Your task to perform on an android device: turn off location history Image 0: 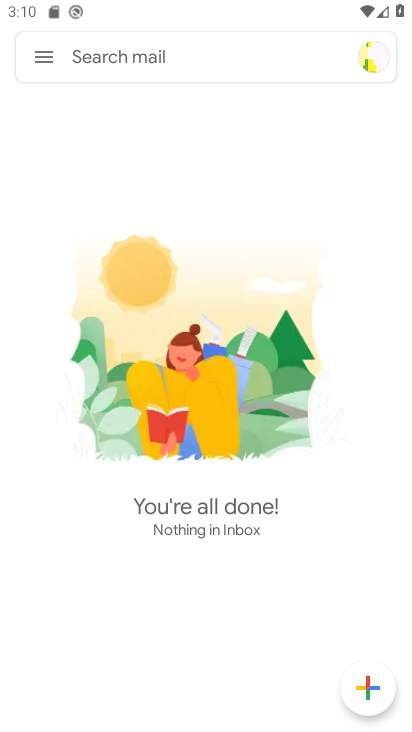
Step 0: click (39, 53)
Your task to perform on an android device: turn off location history Image 1: 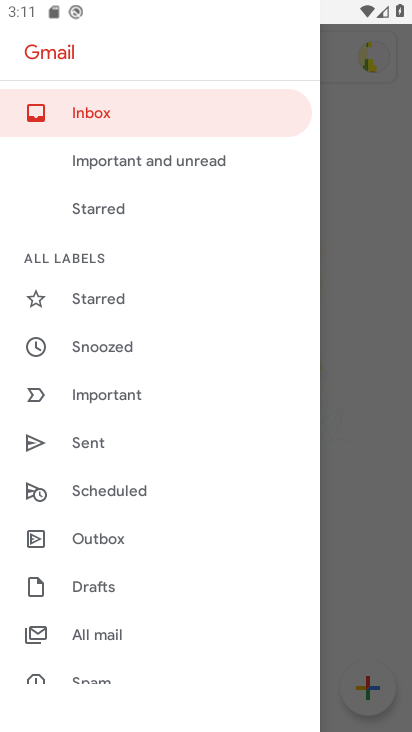
Step 1: press home button
Your task to perform on an android device: turn off location history Image 2: 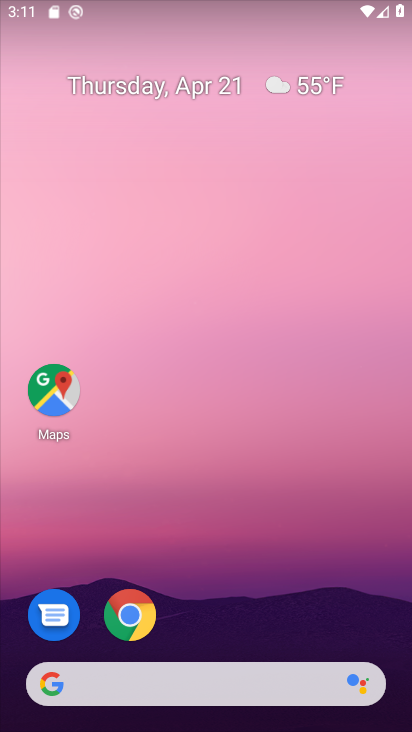
Step 2: drag from (227, 634) to (231, 26)
Your task to perform on an android device: turn off location history Image 3: 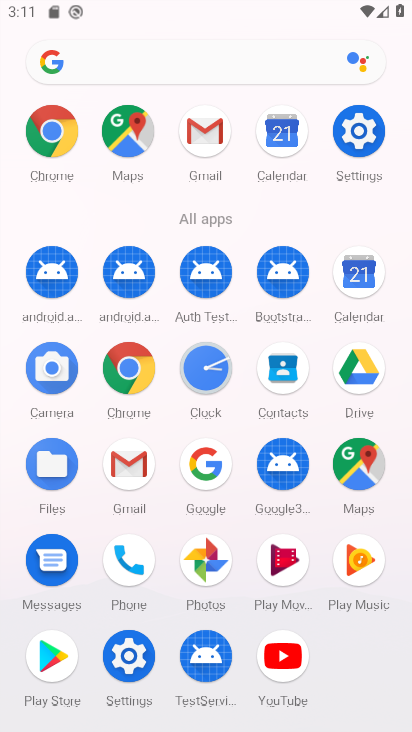
Step 3: click (355, 121)
Your task to perform on an android device: turn off location history Image 4: 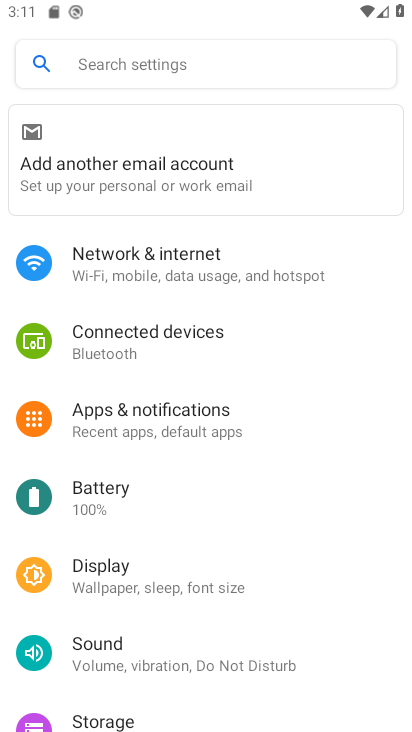
Step 4: drag from (202, 633) to (222, 183)
Your task to perform on an android device: turn off location history Image 5: 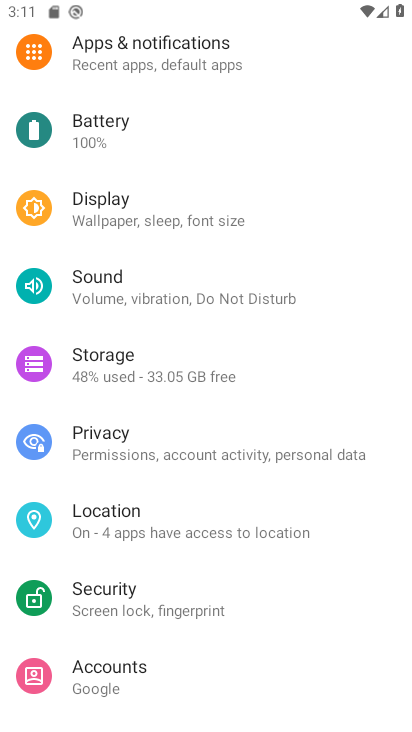
Step 5: click (148, 507)
Your task to perform on an android device: turn off location history Image 6: 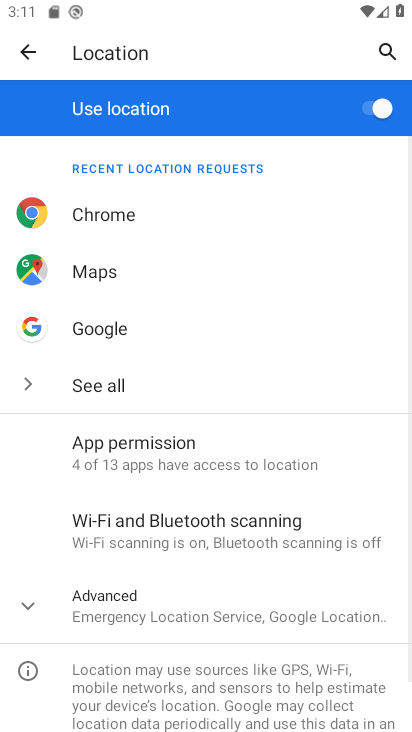
Step 6: click (32, 601)
Your task to perform on an android device: turn off location history Image 7: 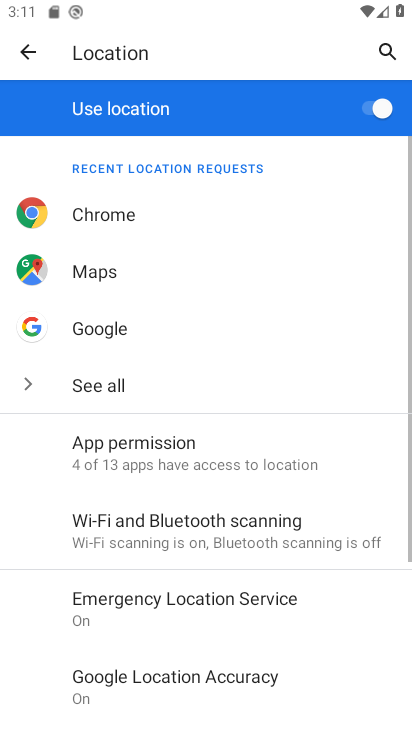
Step 7: drag from (129, 616) to (186, 209)
Your task to perform on an android device: turn off location history Image 8: 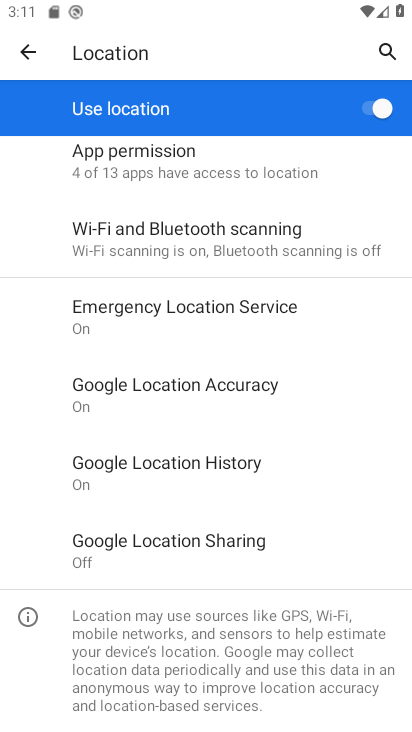
Step 8: click (47, 462)
Your task to perform on an android device: turn off location history Image 9: 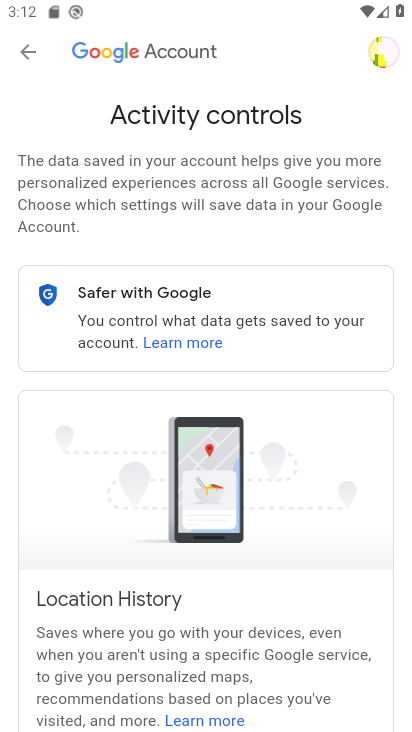
Step 9: drag from (260, 672) to (283, 148)
Your task to perform on an android device: turn off location history Image 10: 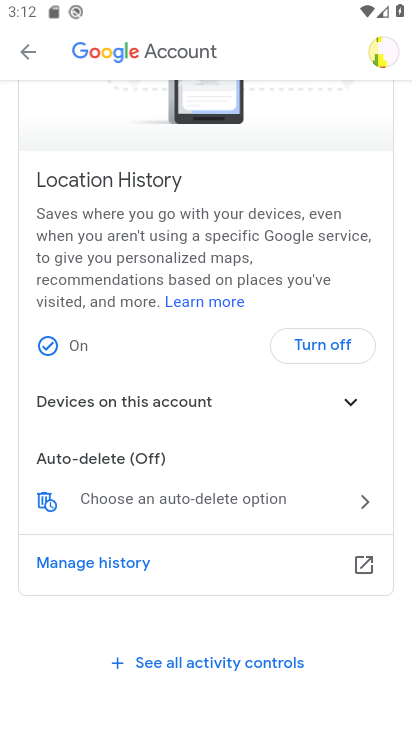
Step 10: click (329, 342)
Your task to perform on an android device: turn off location history Image 11: 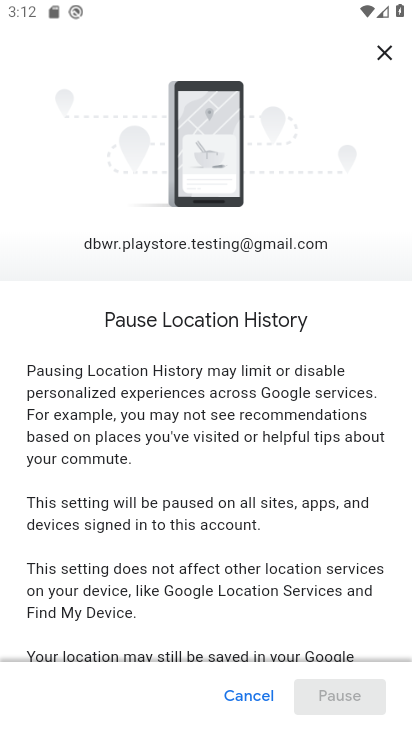
Step 11: drag from (234, 639) to (252, 75)
Your task to perform on an android device: turn off location history Image 12: 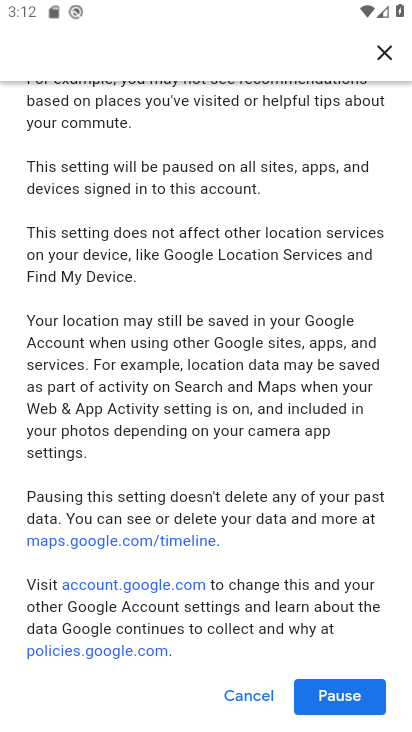
Step 12: click (337, 689)
Your task to perform on an android device: turn off location history Image 13: 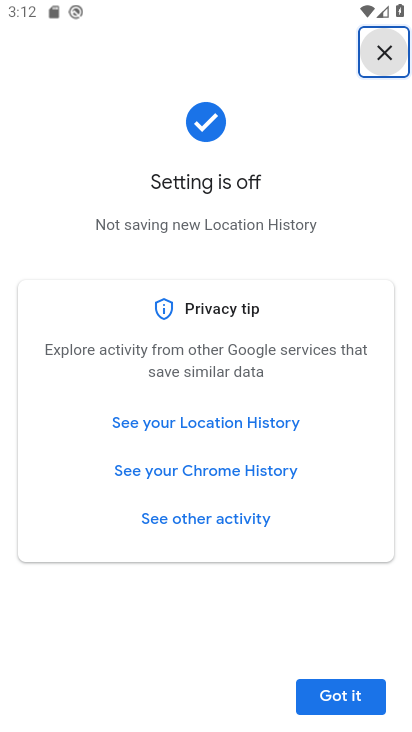
Step 13: click (344, 700)
Your task to perform on an android device: turn off location history Image 14: 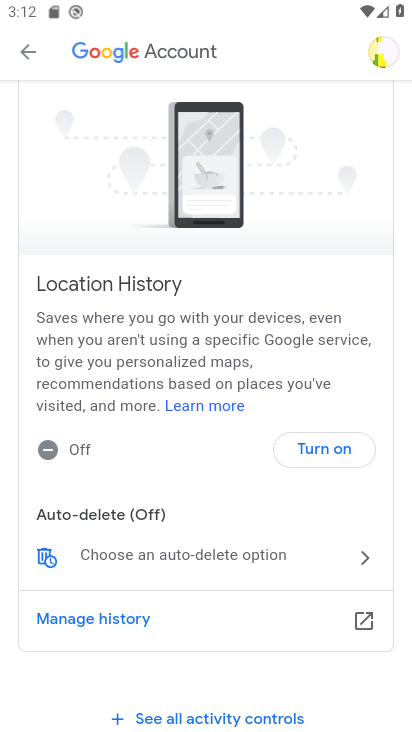
Step 14: task complete